Your task to perform on an android device: Go to Amazon Image 0: 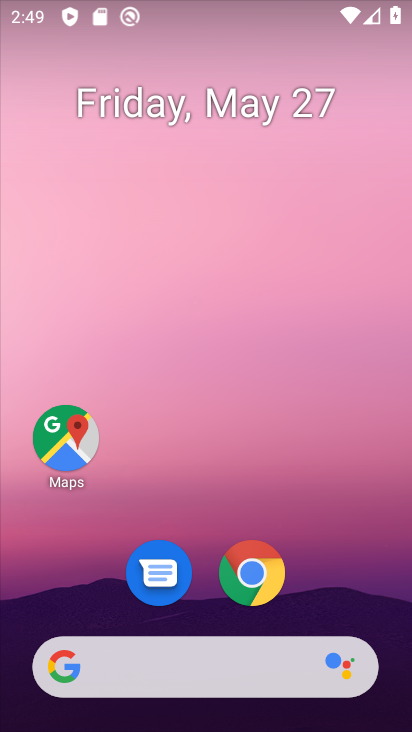
Step 0: click (222, 679)
Your task to perform on an android device: Go to Amazon Image 1: 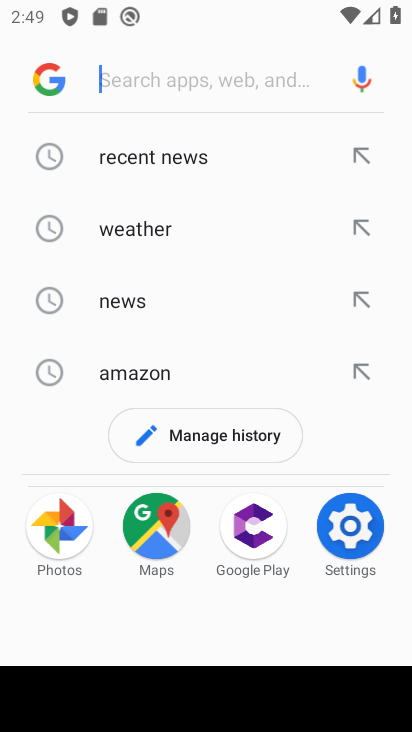
Step 1: type "amazon"
Your task to perform on an android device: Go to Amazon Image 2: 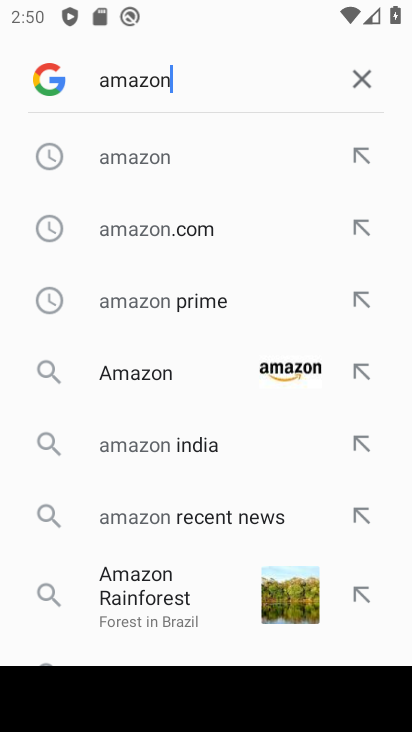
Step 2: click (146, 367)
Your task to perform on an android device: Go to Amazon Image 3: 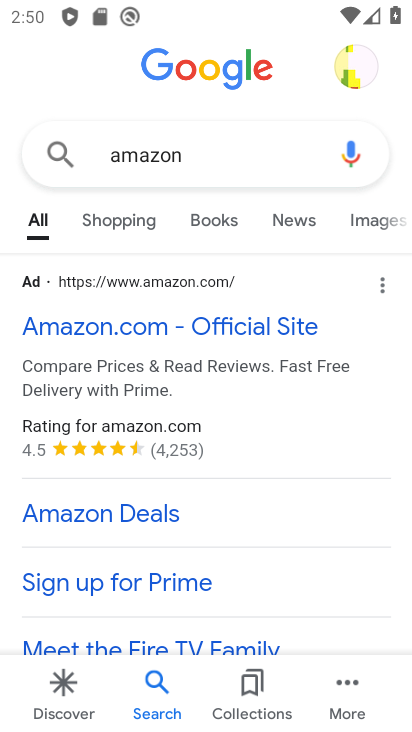
Step 3: click (80, 318)
Your task to perform on an android device: Go to Amazon Image 4: 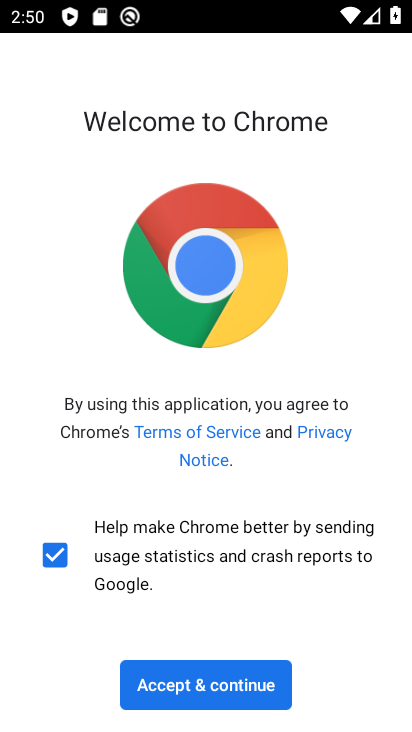
Step 4: click (244, 685)
Your task to perform on an android device: Go to Amazon Image 5: 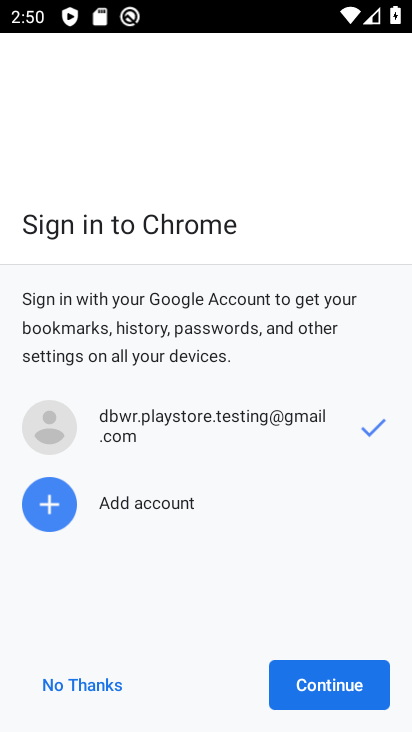
Step 5: click (311, 690)
Your task to perform on an android device: Go to Amazon Image 6: 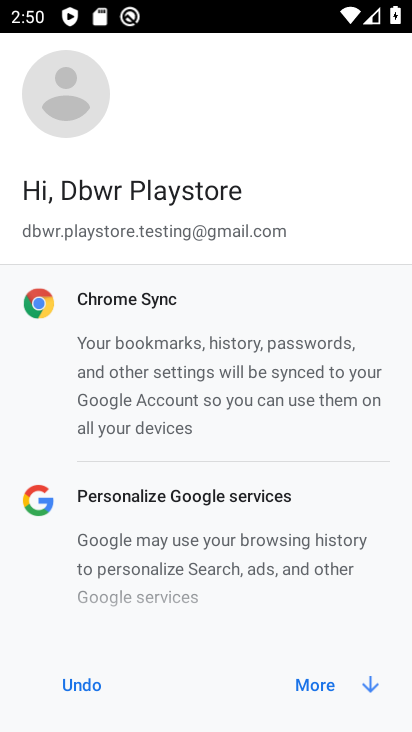
Step 6: click (315, 679)
Your task to perform on an android device: Go to Amazon Image 7: 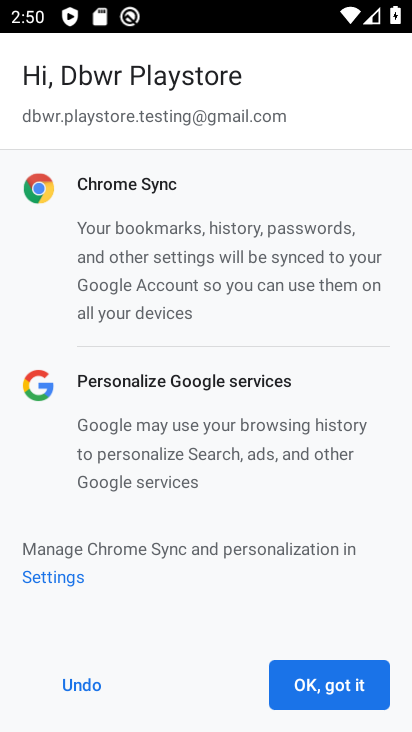
Step 7: click (315, 679)
Your task to perform on an android device: Go to Amazon Image 8: 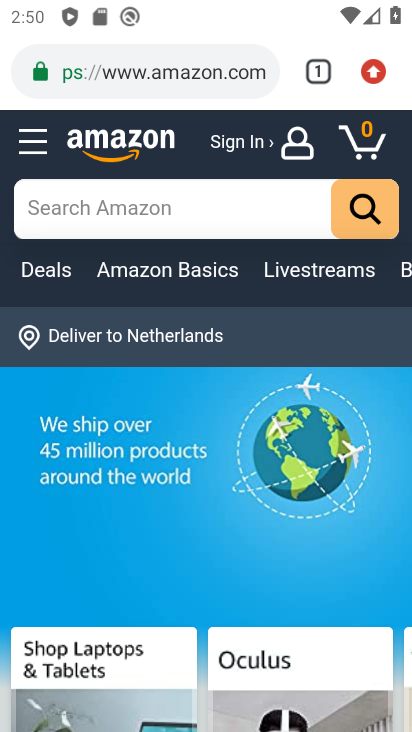
Step 8: task complete